Your task to perform on an android device: toggle airplane mode Image 0: 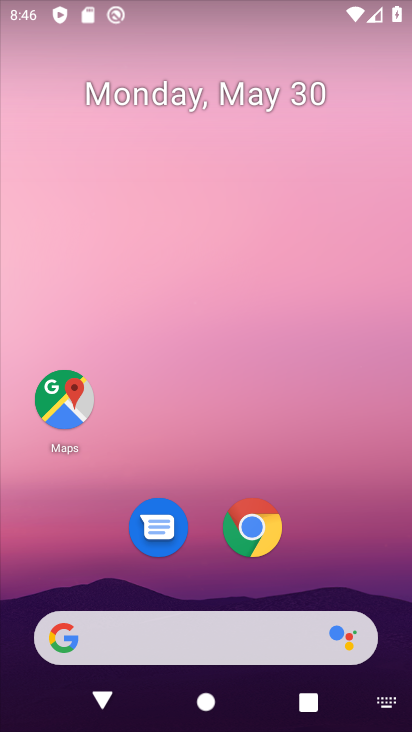
Step 0: drag from (250, 621) to (245, 0)
Your task to perform on an android device: toggle airplane mode Image 1: 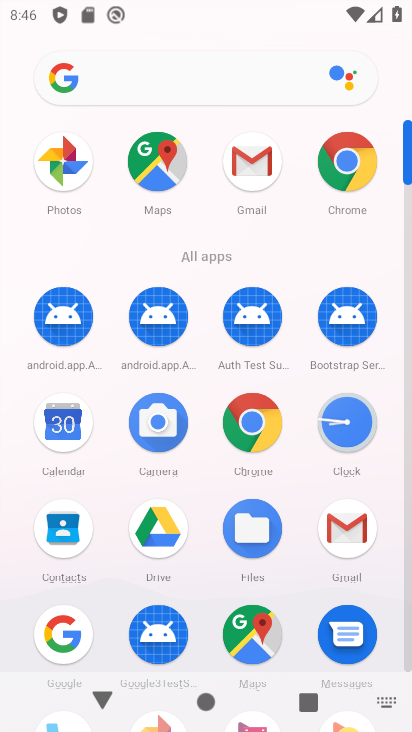
Step 1: drag from (238, 572) to (302, 22)
Your task to perform on an android device: toggle airplane mode Image 2: 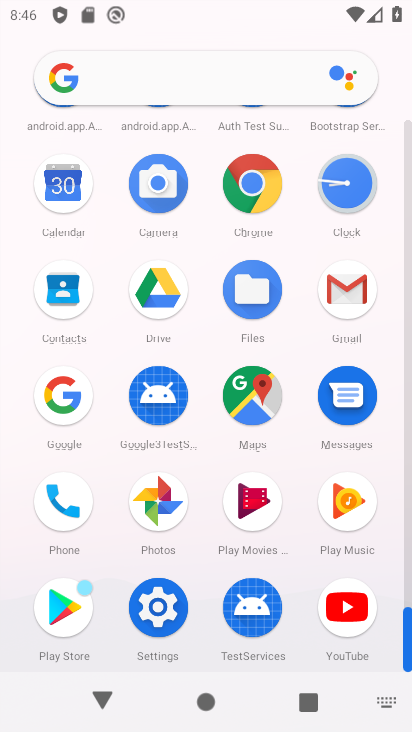
Step 2: click (145, 607)
Your task to perform on an android device: toggle airplane mode Image 3: 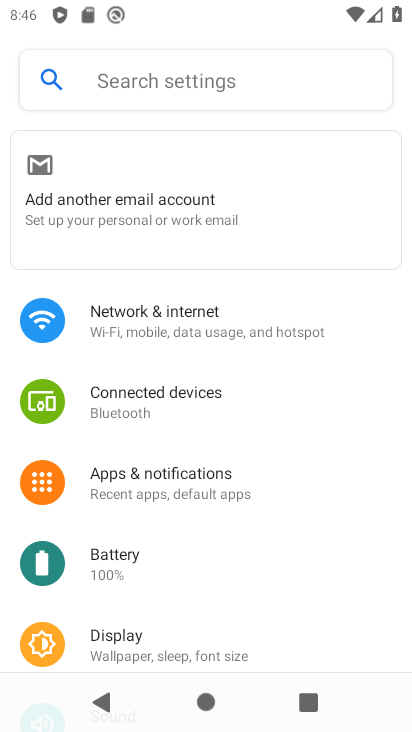
Step 3: click (289, 325)
Your task to perform on an android device: toggle airplane mode Image 4: 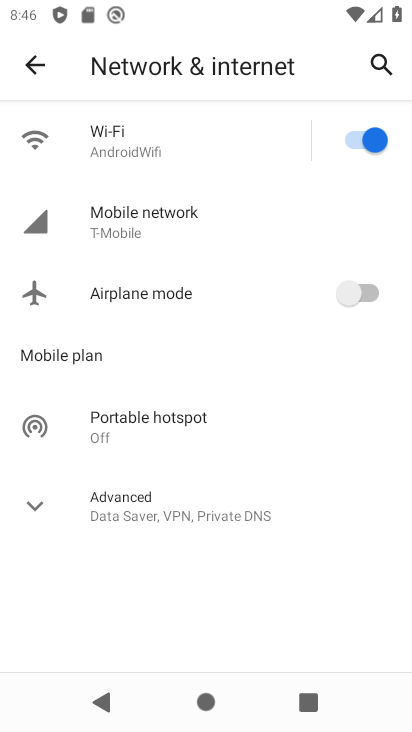
Step 4: click (378, 305)
Your task to perform on an android device: toggle airplane mode Image 5: 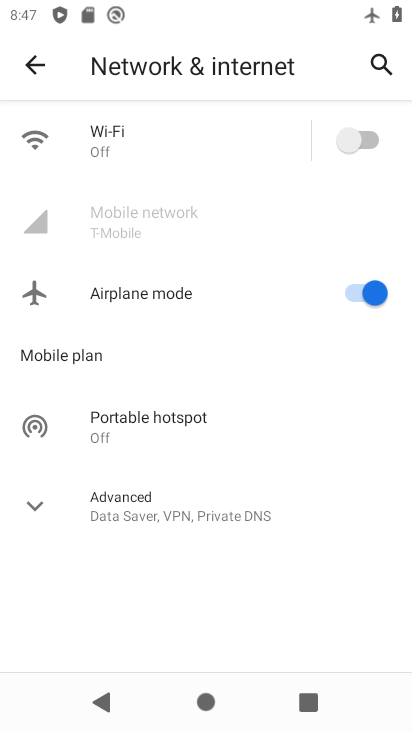
Step 5: task complete